Your task to perform on an android device: Show me productivity apps on the Play Store Image 0: 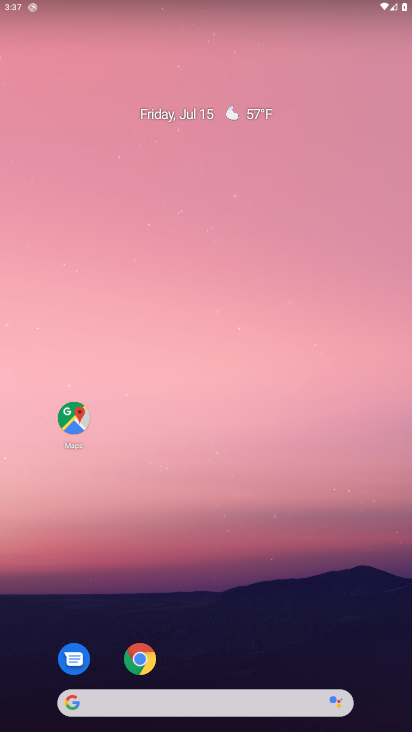
Step 0: drag from (45, 690) to (211, 206)
Your task to perform on an android device: Show me productivity apps on the Play Store Image 1: 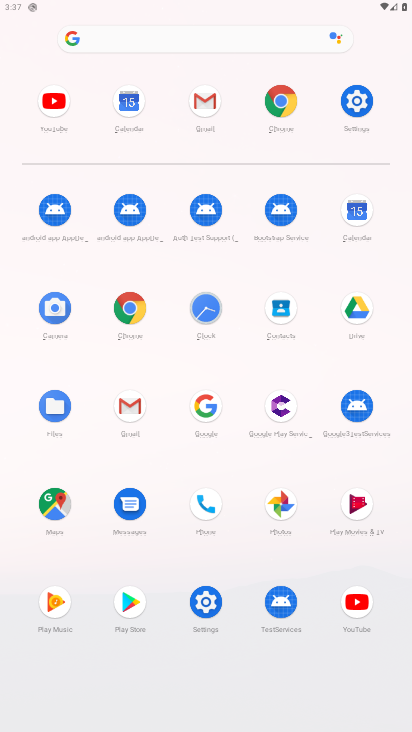
Step 1: click (137, 599)
Your task to perform on an android device: Show me productivity apps on the Play Store Image 2: 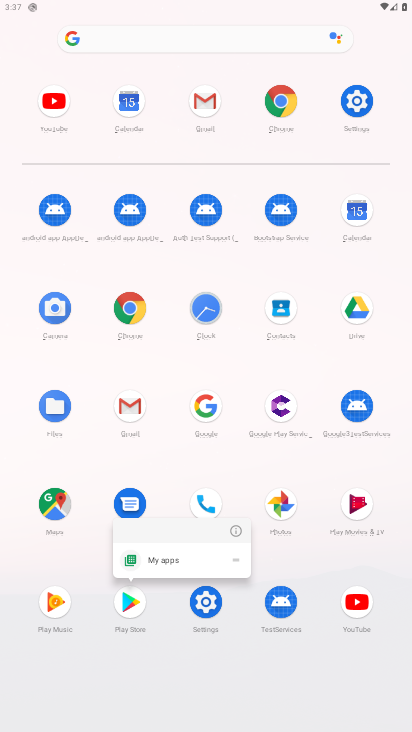
Step 2: click (135, 612)
Your task to perform on an android device: Show me productivity apps on the Play Store Image 3: 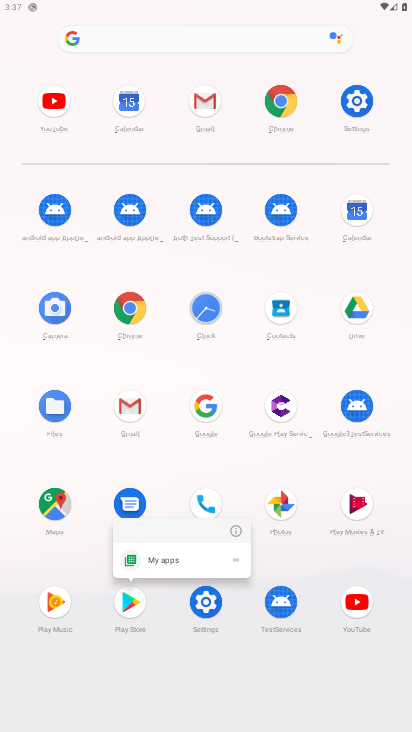
Step 3: click (140, 604)
Your task to perform on an android device: Show me productivity apps on the Play Store Image 4: 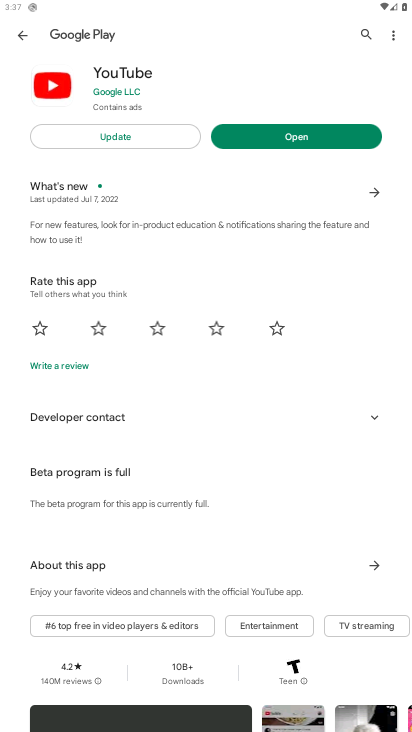
Step 4: click (26, 22)
Your task to perform on an android device: Show me productivity apps on the Play Store Image 5: 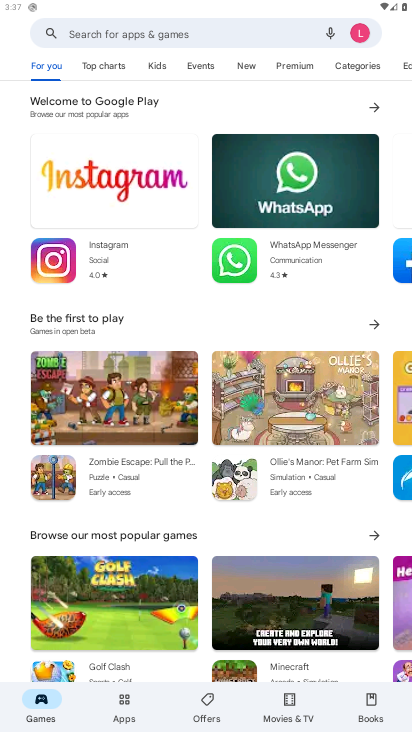
Step 5: click (96, 25)
Your task to perform on an android device: Show me productivity apps on the Play Store Image 6: 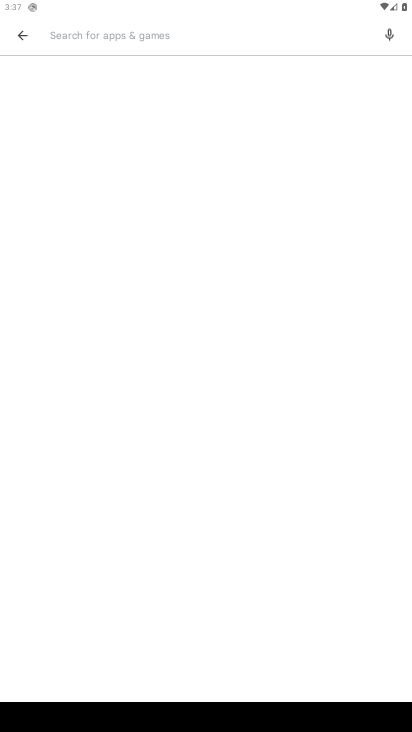
Step 6: type "productivity apps"
Your task to perform on an android device: Show me productivity apps on the Play Store Image 7: 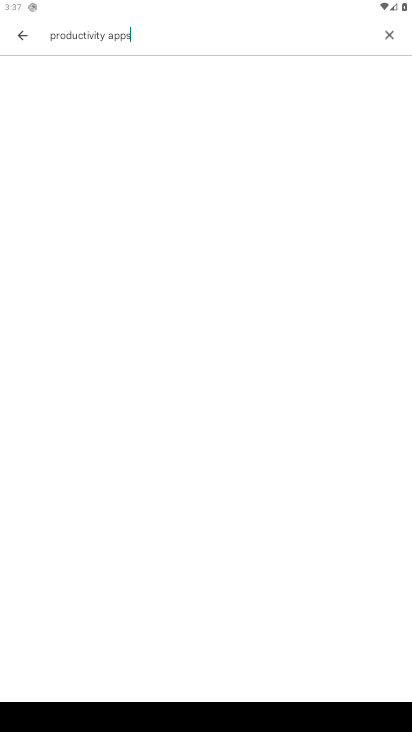
Step 7: type ""
Your task to perform on an android device: Show me productivity apps on the Play Store Image 8: 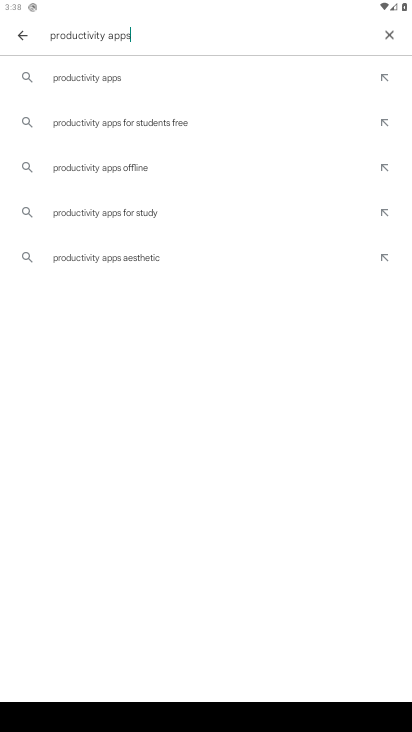
Step 8: click (97, 79)
Your task to perform on an android device: Show me productivity apps on the Play Store Image 9: 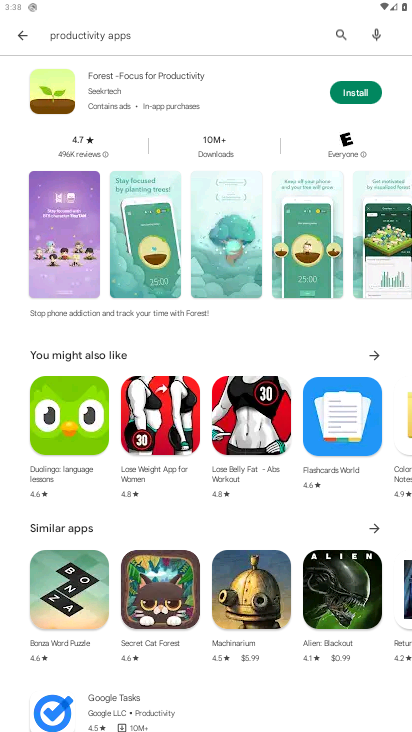
Step 9: task complete